Your task to perform on an android device: check android version Image 0: 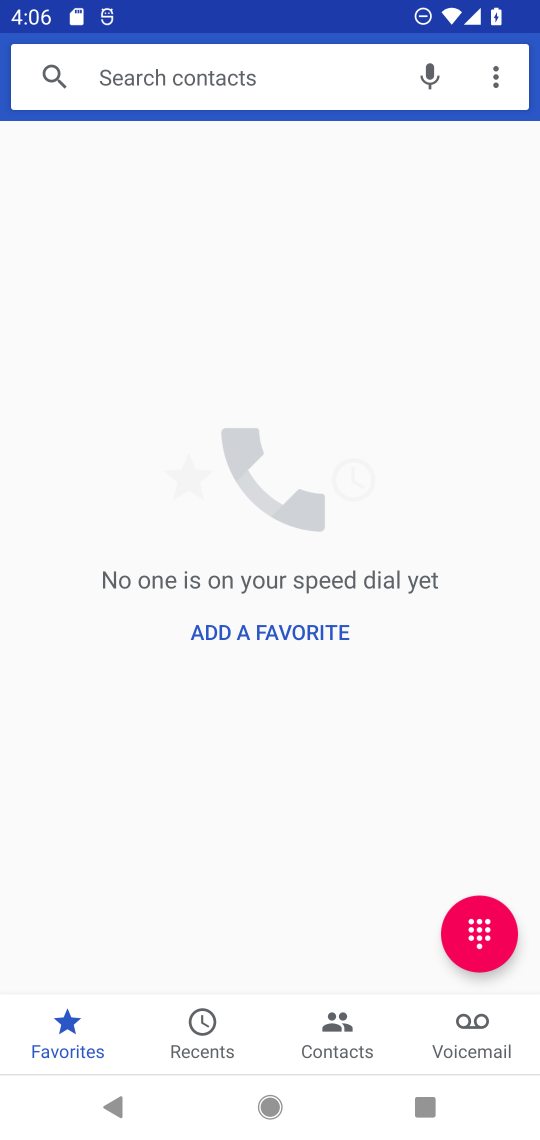
Step 0: press home button
Your task to perform on an android device: check android version Image 1: 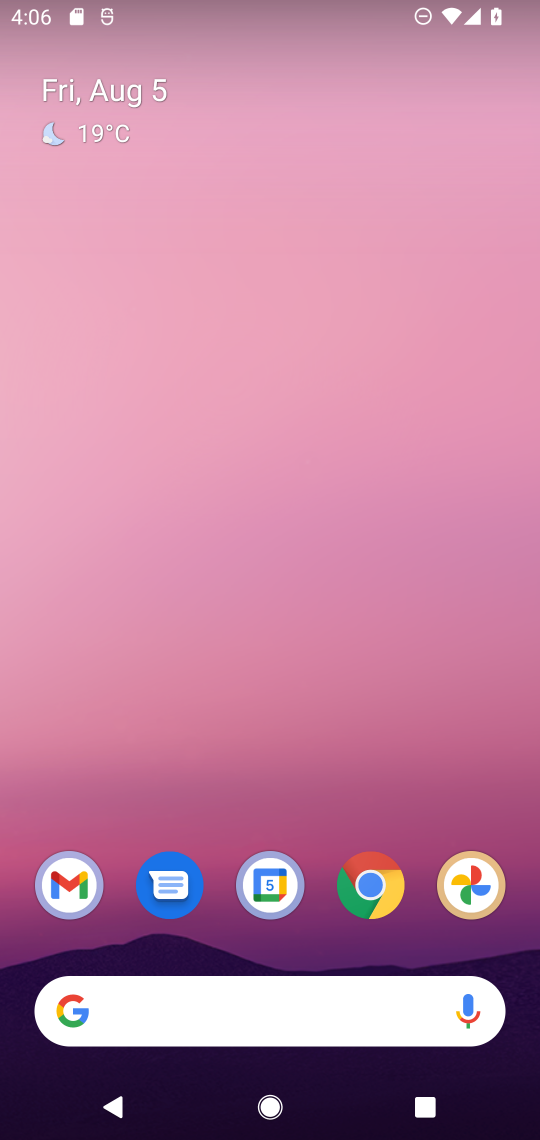
Step 1: drag from (320, 867) to (310, 2)
Your task to perform on an android device: check android version Image 2: 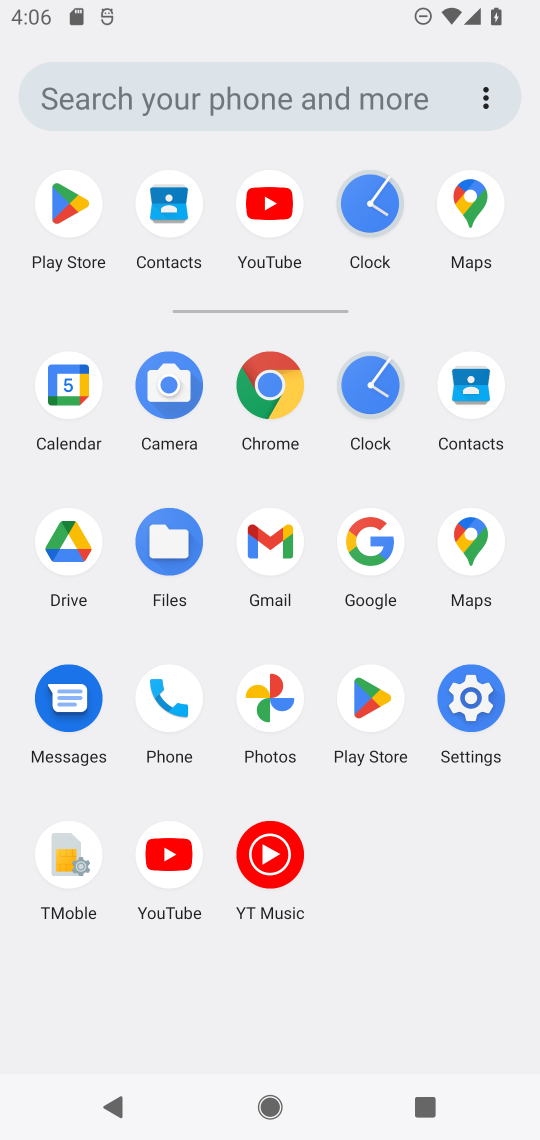
Step 2: click (488, 685)
Your task to perform on an android device: check android version Image 3: 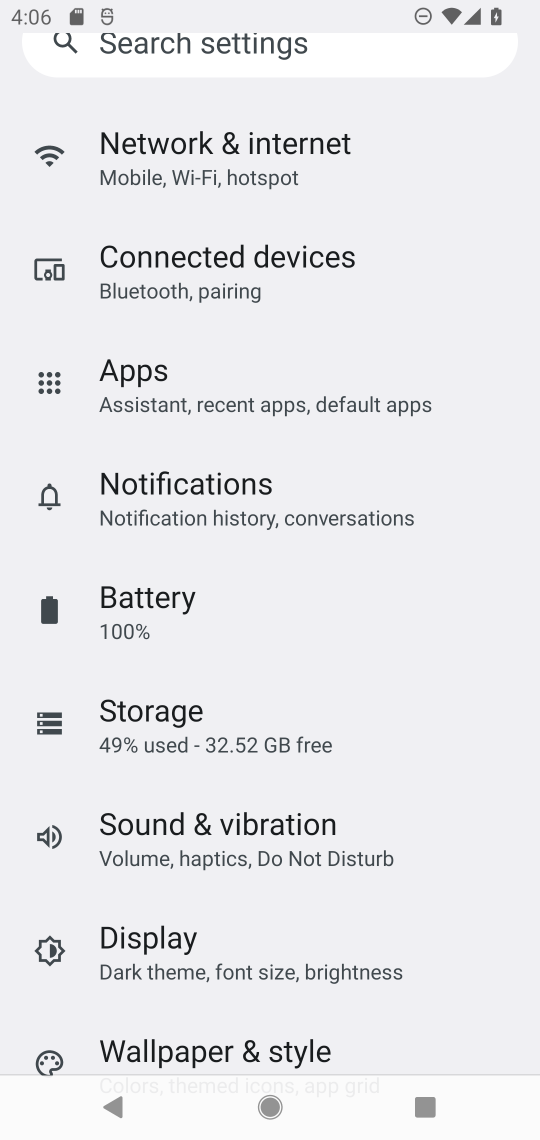
Step 3: drag from (318, 999) to (253, 528)
Your task to perform on an android device: check android version Image 4: 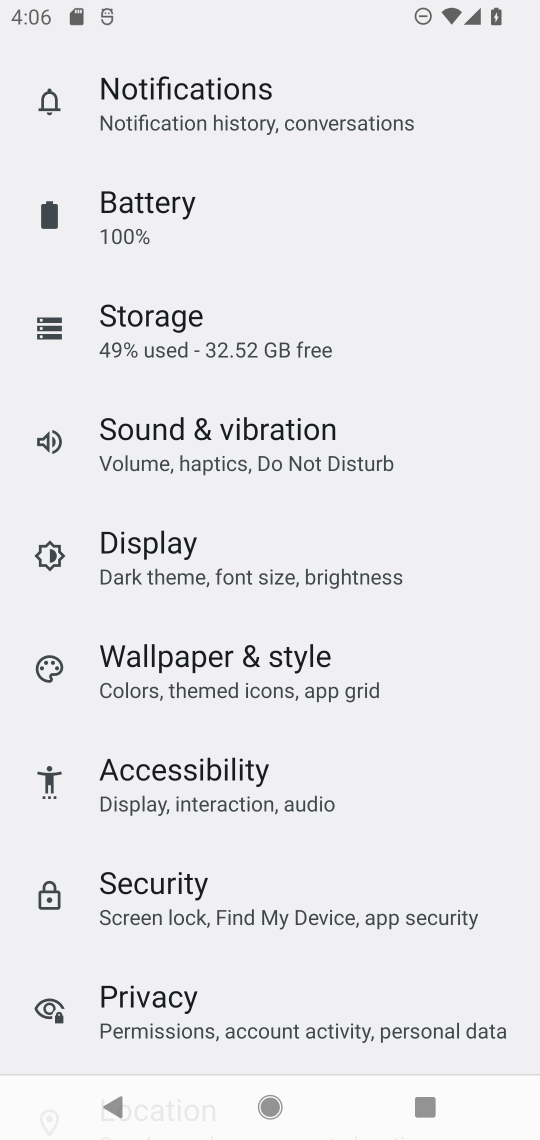
Step 4: drag from (204, 866) to (173, 485)
Your task to perform on an android device: check android version Image 5: 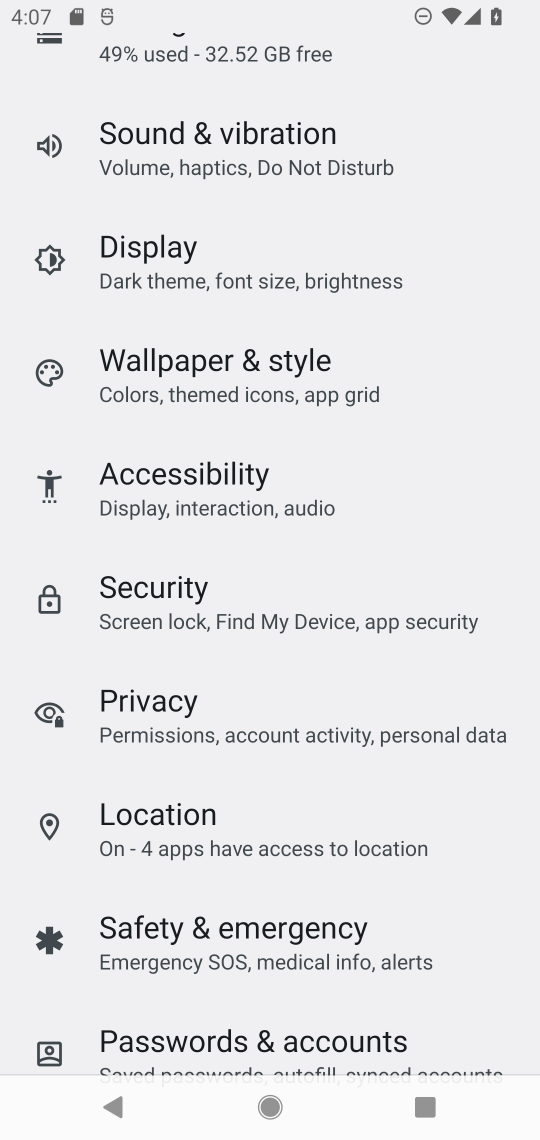
Step 5: drag from (340, 1081) to (284, 710)
Your task to perform on an android device: check android version Image 6: 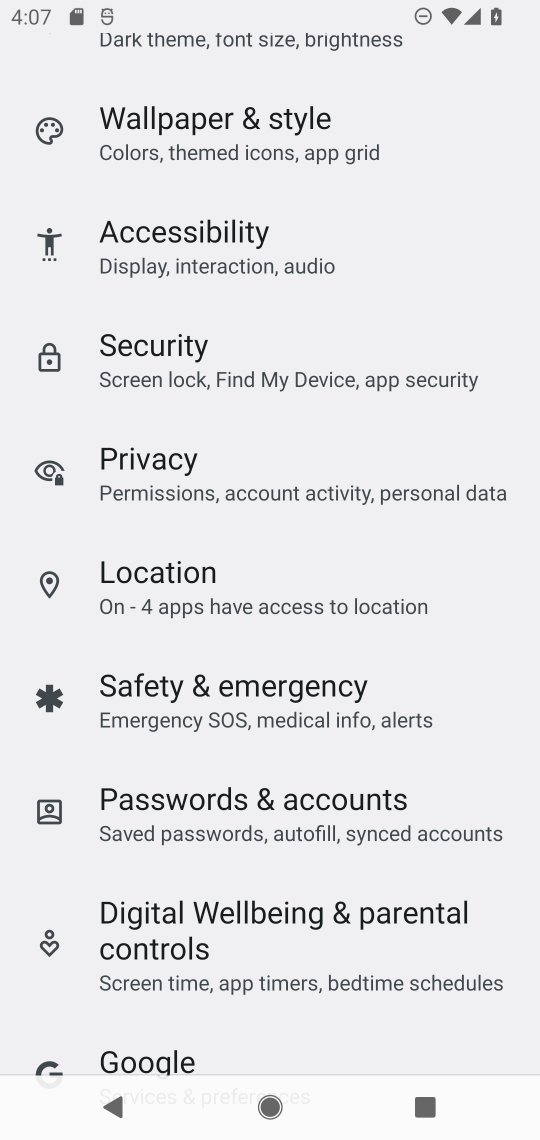
Step 6: drag from (218, 973) to (180, 718)
Your task to perform on an android device: check android version Image 7: 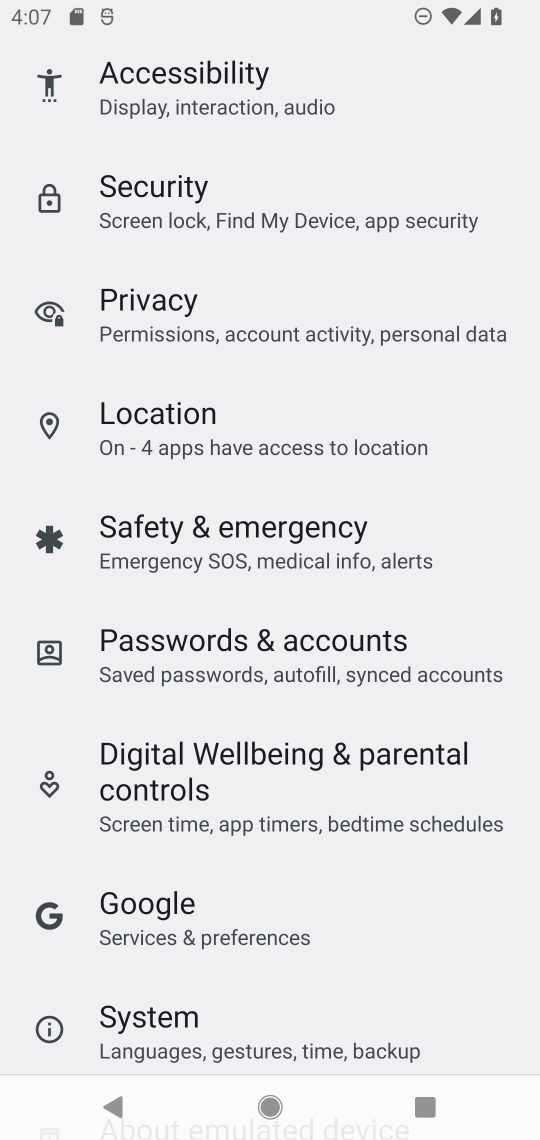
Step 7: drag from (209, 987) to (202, 648)
Your task to perform on an android device: check android version Image 8: 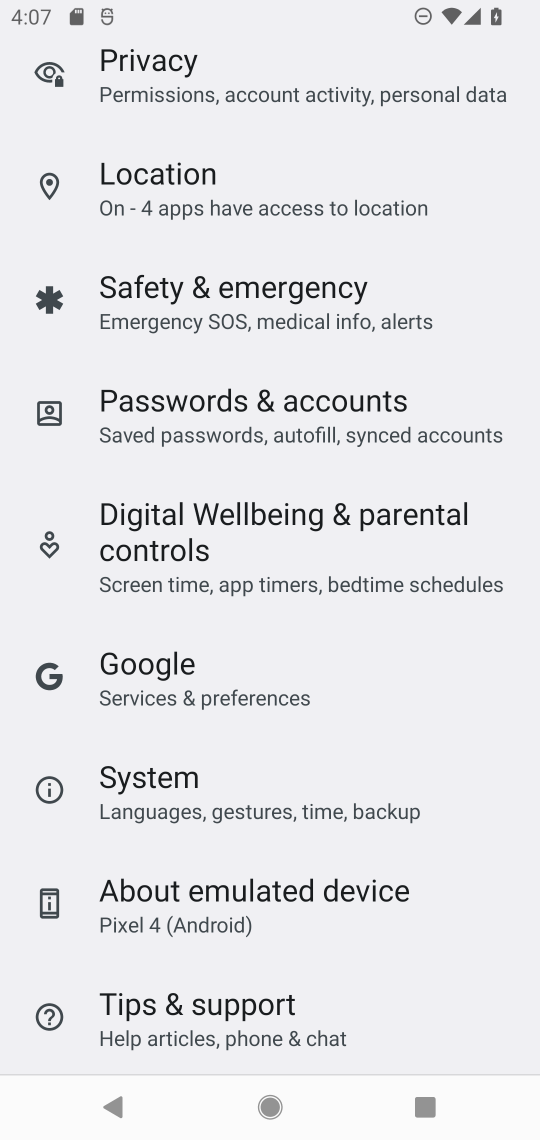
Step 8: drag from (241, 992) to (158, 464)
Your task to perform on an android device: check android version Image 9: 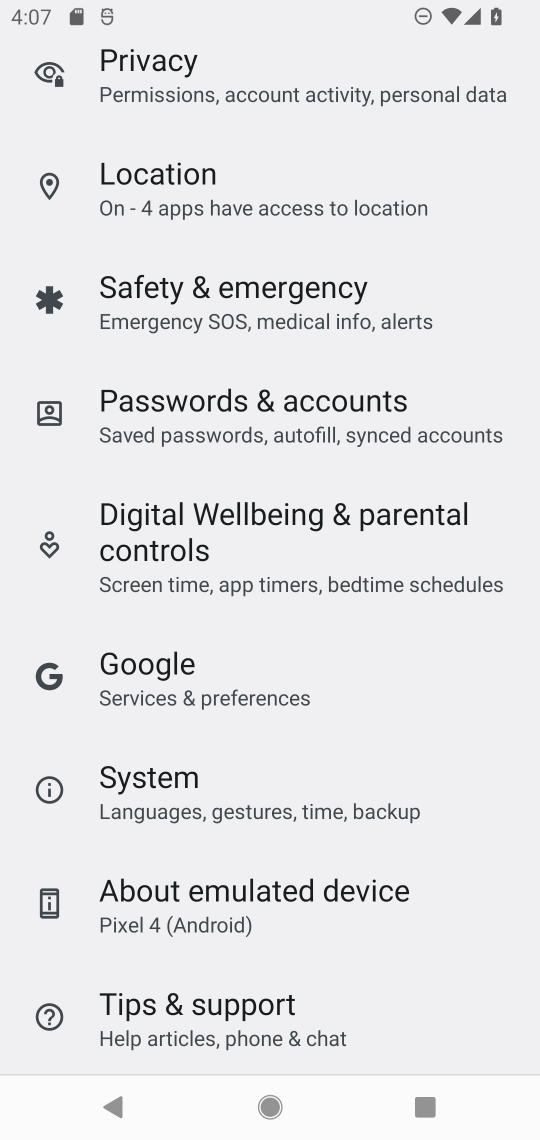
Step 9: click (211, 898)
Your task to perform on an android device: check android version Image 10: 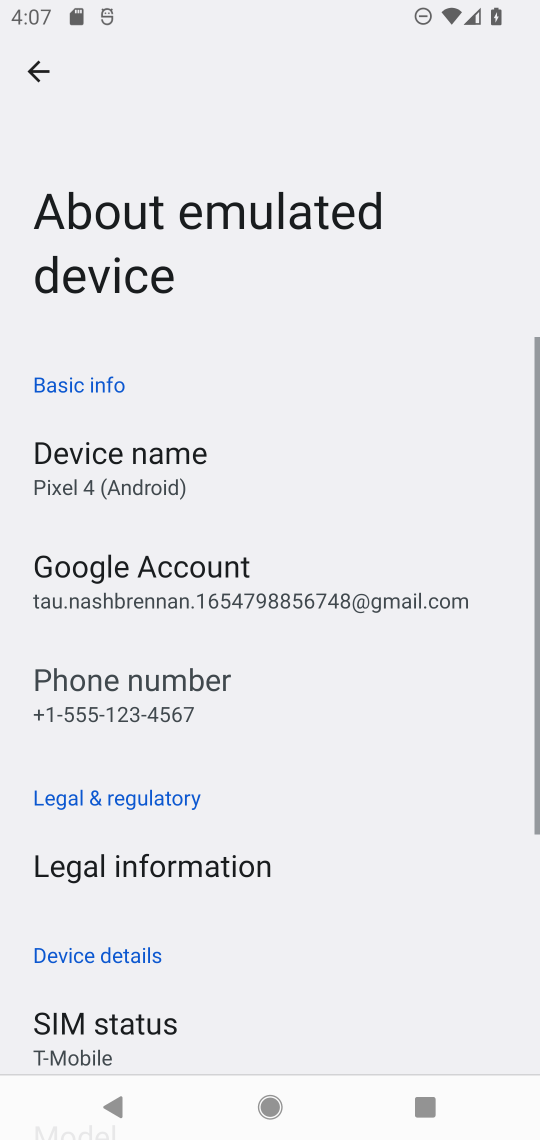
Step 10: drag from (205, 1019) to (205, 551)
Your task to perform on an android device: check android version Image 11: 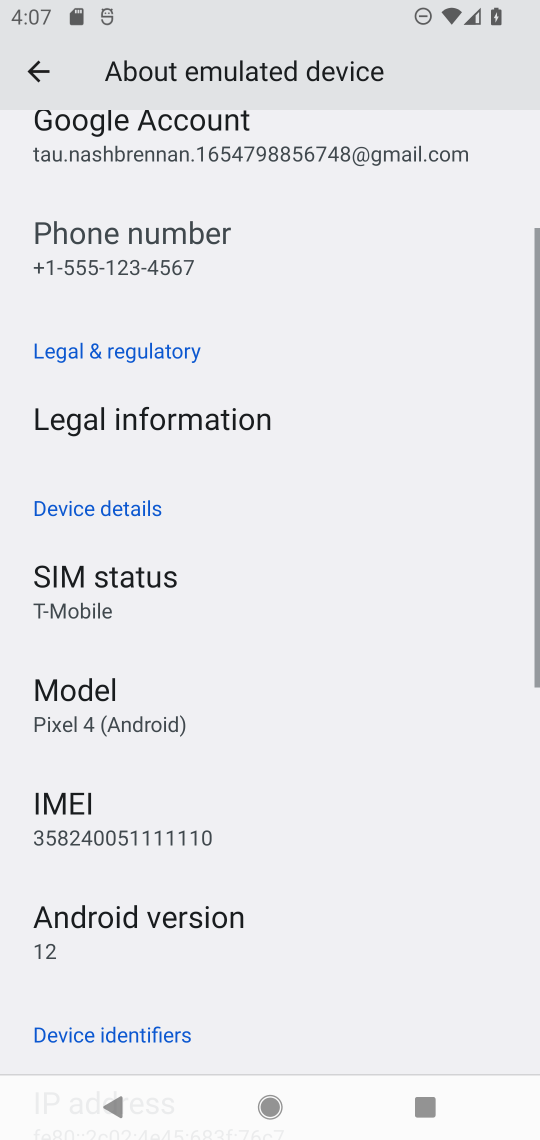
Step 11: click (176, 926)
Your task to perform on an android device: check android version Image 12: 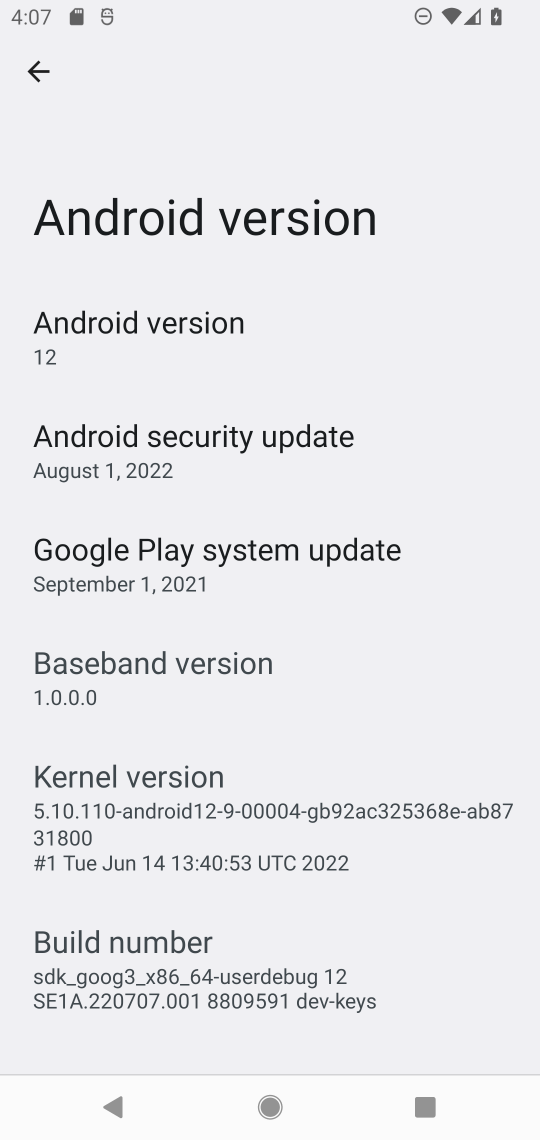
Step 12: task complete